Your task to perform on an android device: turn off location Image 0: 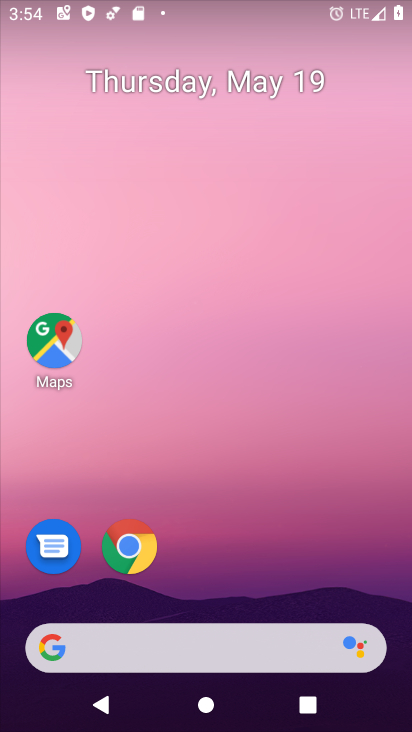
Step 0: drag from (275, 208) to (285, 78)
Your task to perform on an android device: turn off location Image 1: 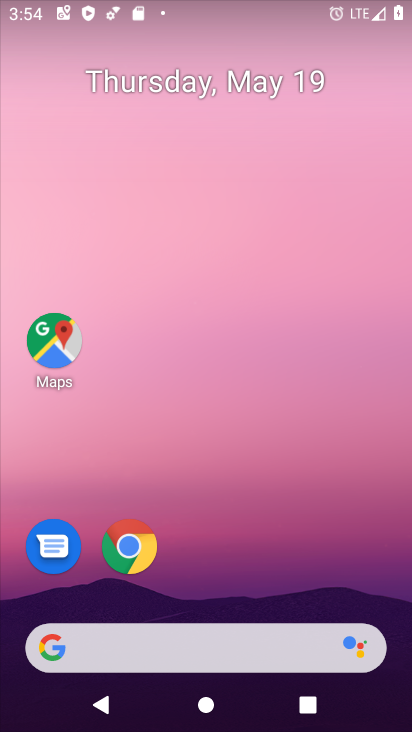
Step 1: drag from (207, 557) to (264, 144)
Your task to perform on an android device: turn off location Image 2: 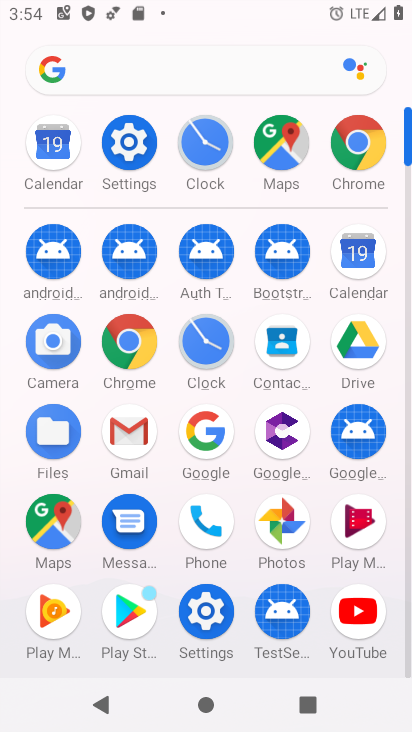
Step 2: click (120, 135)
Your task to perform on an android device: turn off location Image 3: 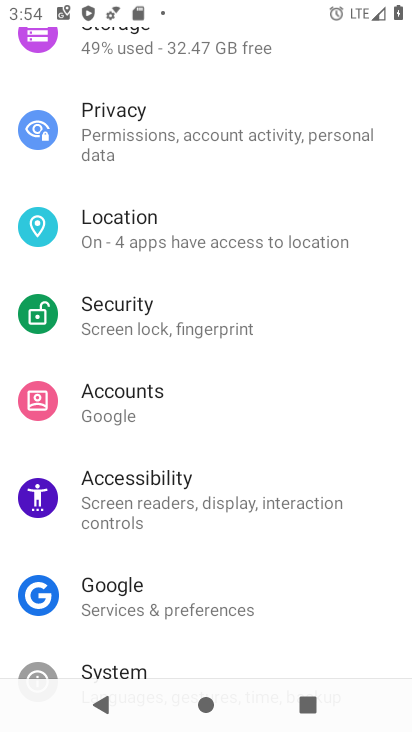
Step 3: drag from (170, 593) to (191, 621)
Your task to perform on an android device: turn off location Image 4: 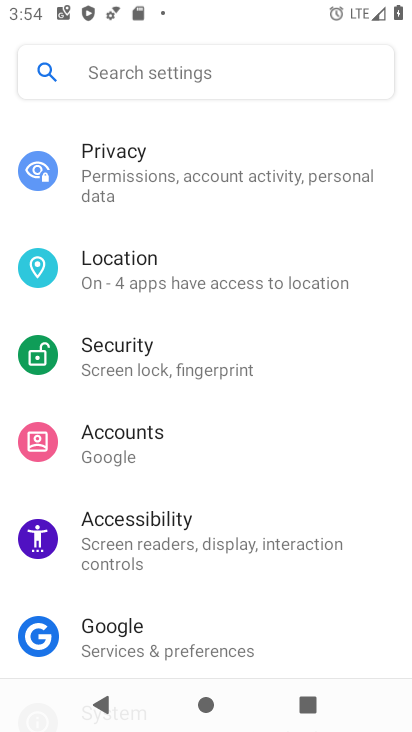
Step 4: click (151, 270)
Your task to perform on an android device: turn off location Image 5: 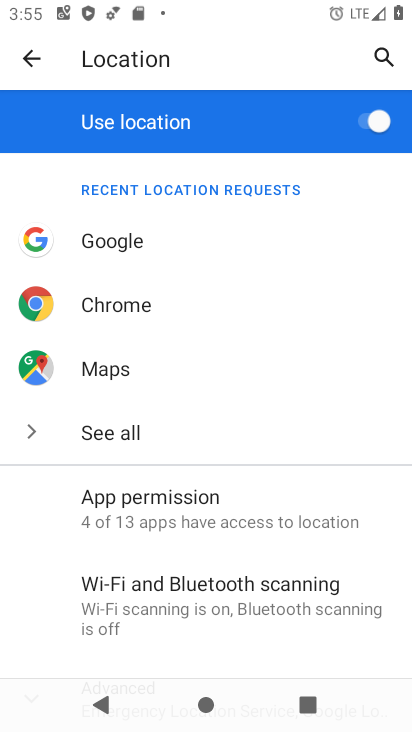
Step 5: click (369, 115)
Your task to perform on an android device: turn off location Image 6: 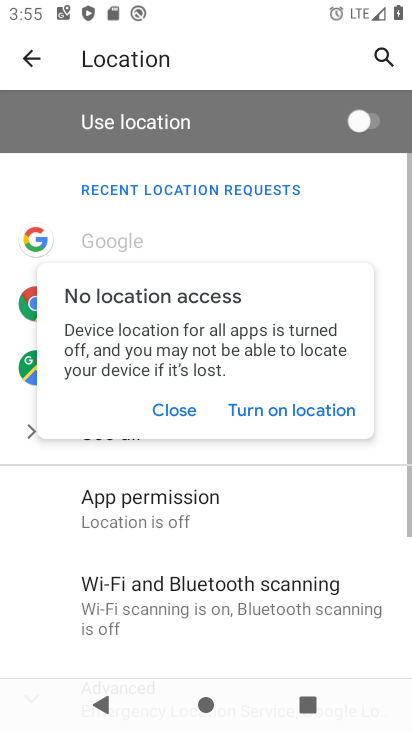
Step 6: task complete